Your task to perform on an android device: toggle airplane mode Image 0: 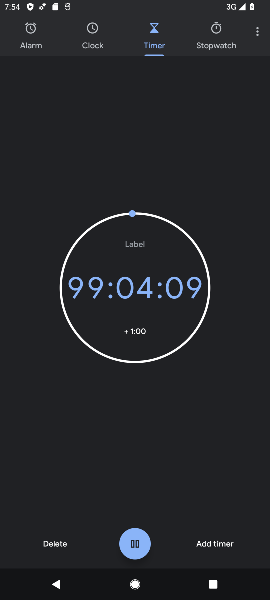
Step 0: press home button
Your task to perform on an android device: toggle airplane mode Image 1: 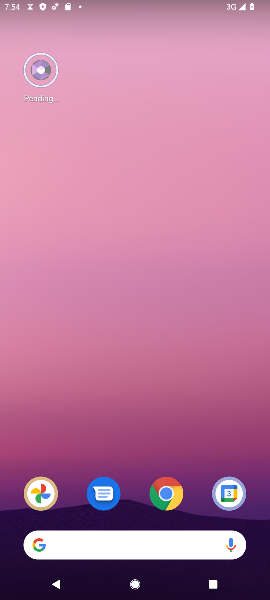
Step 1: drag from (128, 515) to (180, 196)
Your task to perform on an android device: toggle airplane mode Image 2: 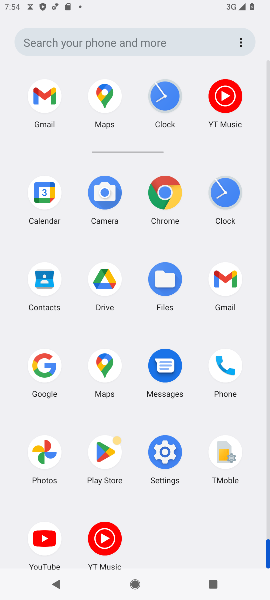
Step 2: click (167, 459)
Your task to perform on an android device: toggle airplane mode Image 3: 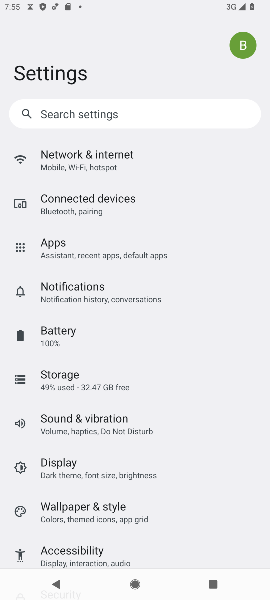
Step 3: click (53, 163)
Your task to perform on an android device: toggle airplane mode Image 4: 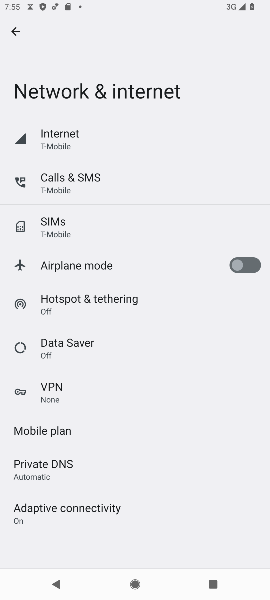
Step 4: click (255, 261)
Your task to perform on an android device: toggle airplane mode Image 5: 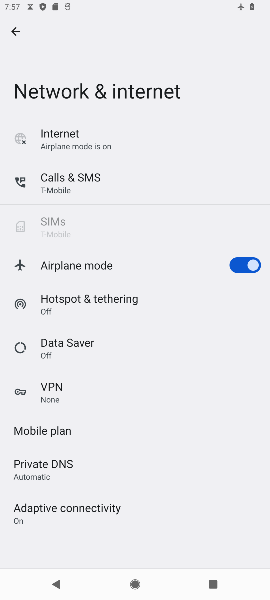
Step 5: task complete